Your task to perform on an android device: Show me recent news Image 0: 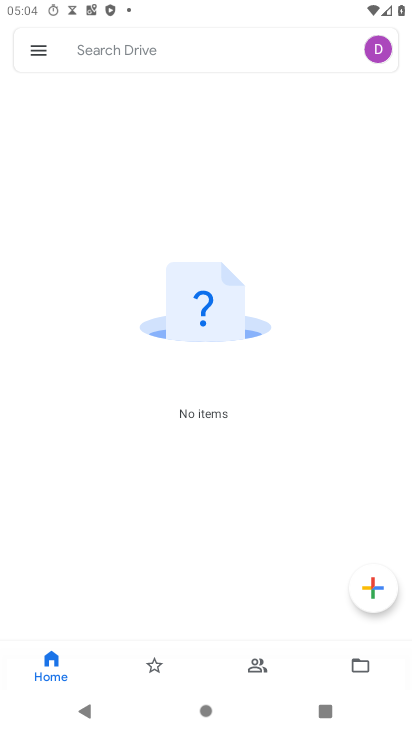
Step 0: press home button
Your task to perform on an android device: Show me recent news Image 1: 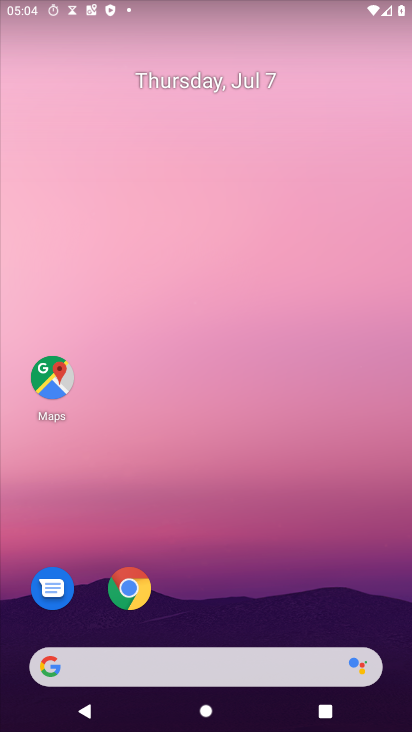
Step 1: click (55, 663)
Your task to perform on an android device: Show me recent news Image 2: 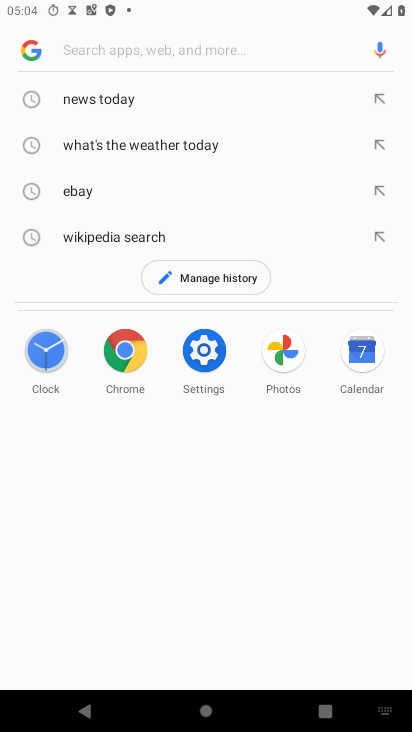
Step 2: type "recent news"
Your task to perform on an android device: Show me recent news Image 3: 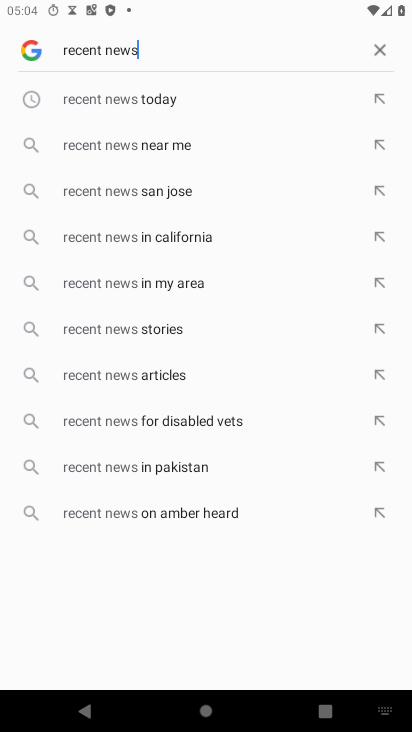
Step 3: click (106, 98)
Your task to perform on an android device: Show me recent news Image 4: 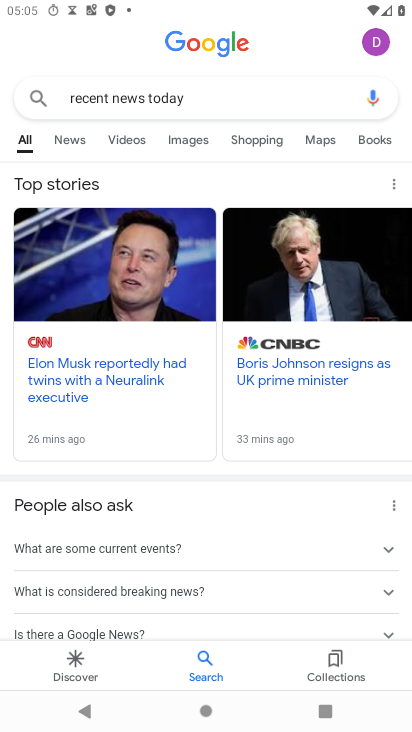
Step 4: task complete